Your task to perform on an android device: Set the phone to "Do not disturb". Image 0: 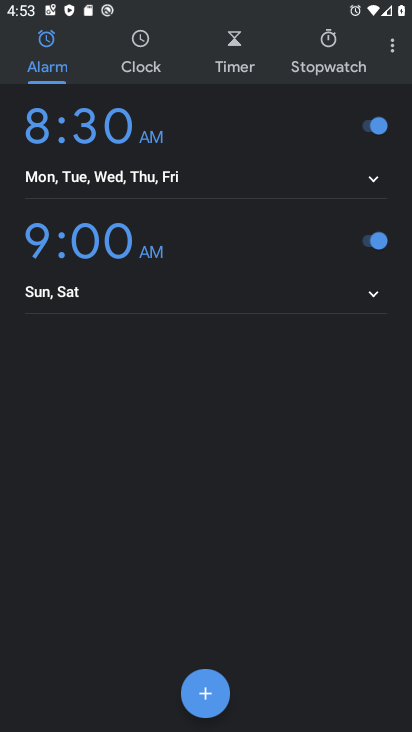
Step 0: press home button
Your task to perform on an android device: Set the phone to "Do not disturb". Image 1: 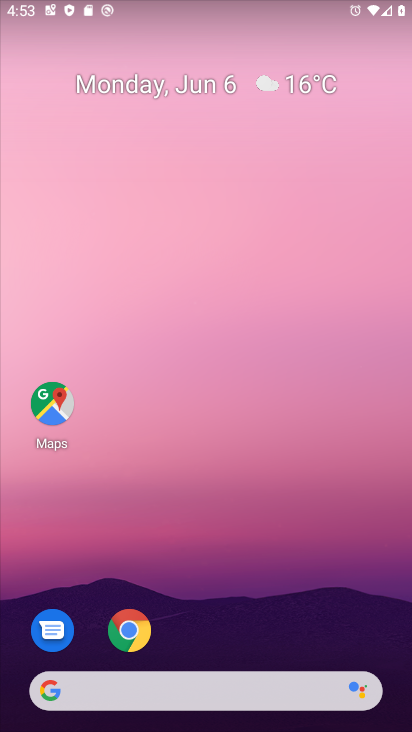
Step 1: drag from (253, 553) to (22, 76)
Your task to perform on an android device: Set the phone to "Do not disturb". Image 2: 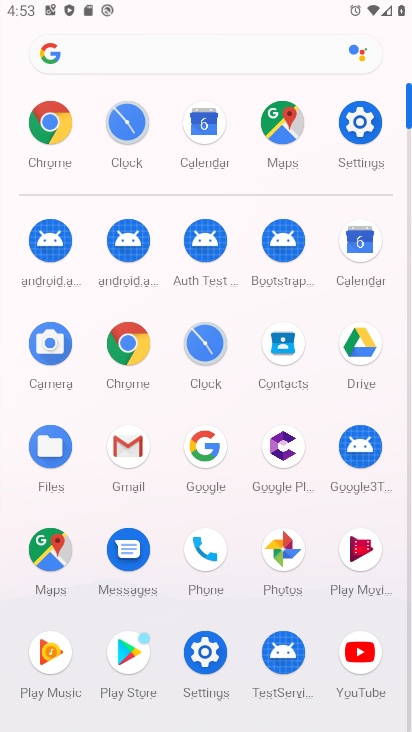
Step 2: click (198, 647)
Your task to perform on an android device: Set the phone to "Do not disturb". Image 3: 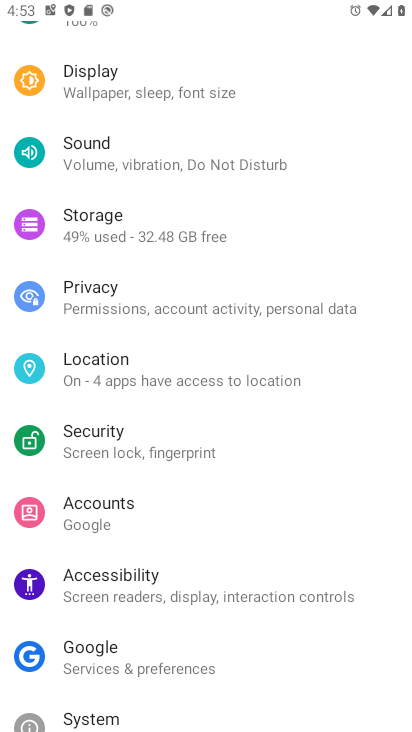
Step 3: click (176, 155)
Your task to perform on an android device: Set the phone to "Do not disturb". Image 4: 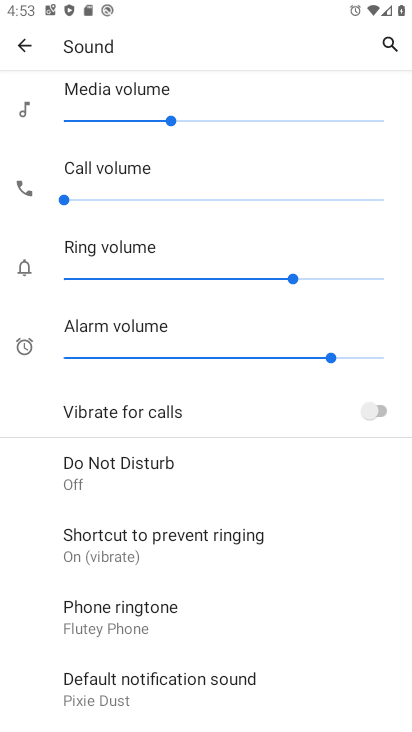
Step 4: click (143, 473)
Your task to perform on an android device: Set the phone to "Do not disturb". Image 5: 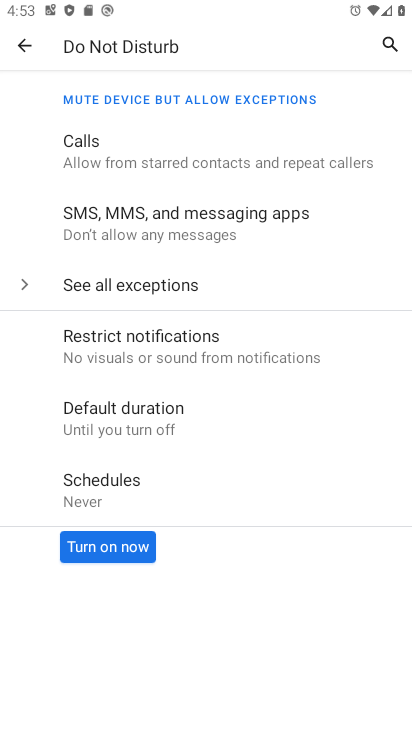
Step 5: click (121, 548)
Your task to perform on an android device: Set the phone to "Do not disturb". Image 6: 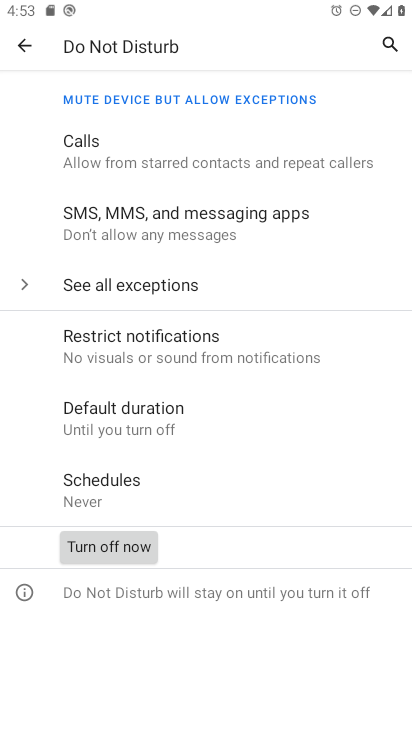
Step 6: task complete